Your task to perform on an android device: What's the weather going to be tomorrow? Image 0: 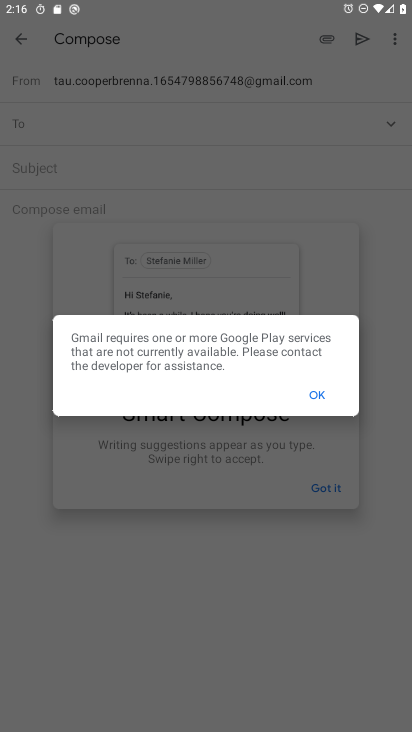
Step 0: press home button
Your task to perform on an android device: What's the weather going to be tomorrow? Image 1: 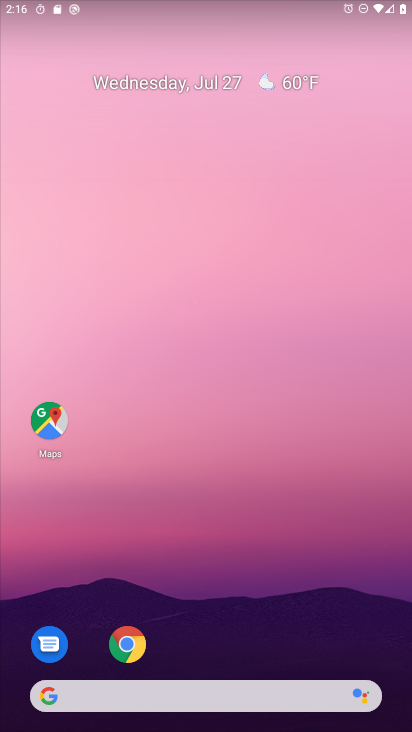
Step 1: drag from (150, 440) to (194, 177)
Your task to perform on an android device: What's the weather going to be tomorrow? Image 2: 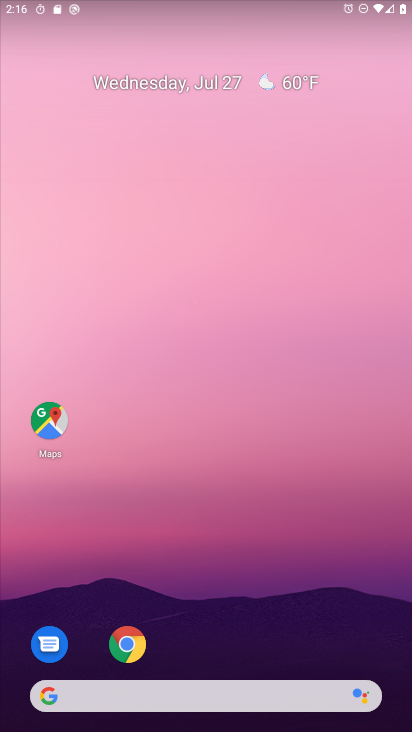
Step 2: drag from (174, 645) to (212, 159)
Your task to perform on an android device: What's the weather going to be tomorrow? Image 3: 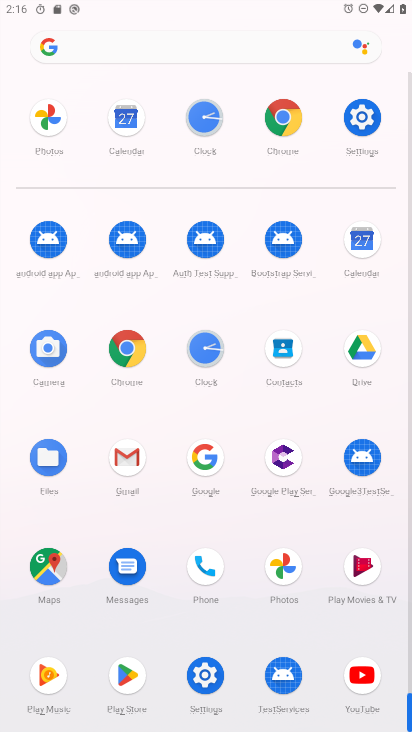
Step 3: click (133, 48)
Your task to perform on an android device: What's the weather going to be tomorrow? Image 4: 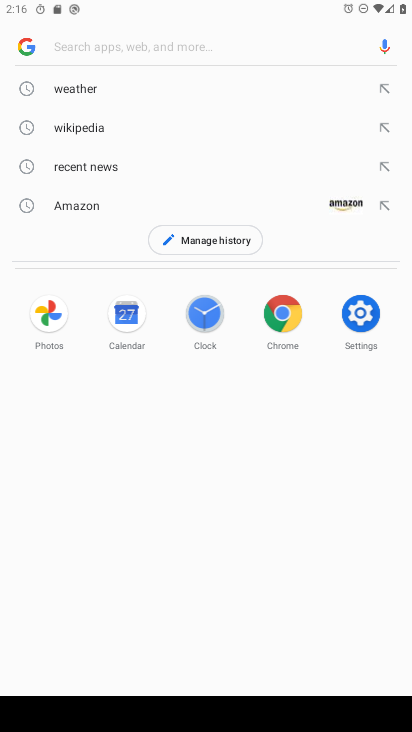
Step 4: type "What's the weather going to be tomorrow?"
Your task to perform on an android device: What's the weather going to be tomorrow? Image 5: 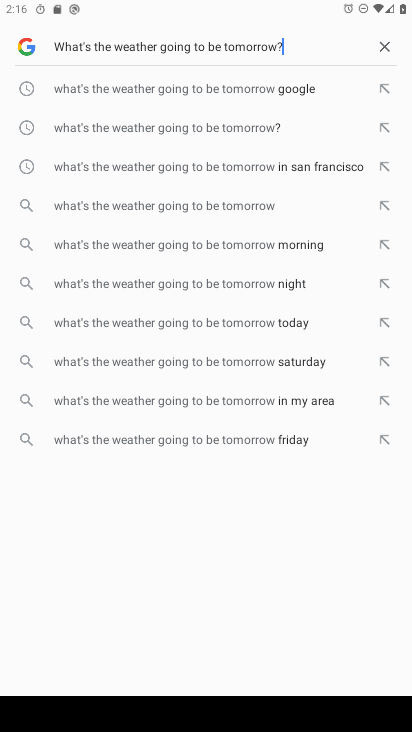
Step 5: type ""
Your task to perform on an android device: What's the weather going to be tomorrow? Image 6: 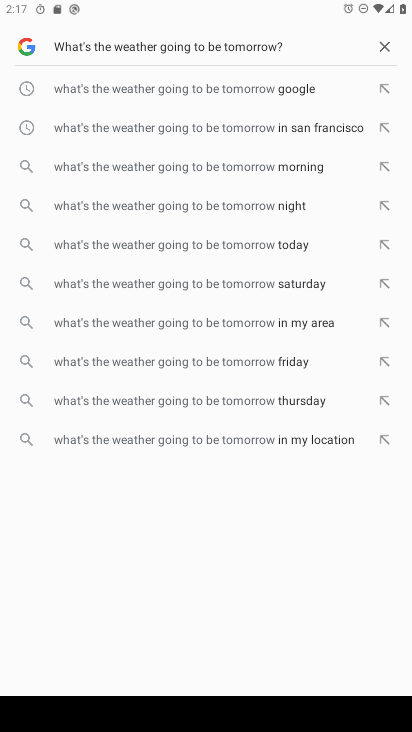
Step 6: click (206, 94)
Your task to perform on an android device: What's the weather going to be tomorrow? Image 7: 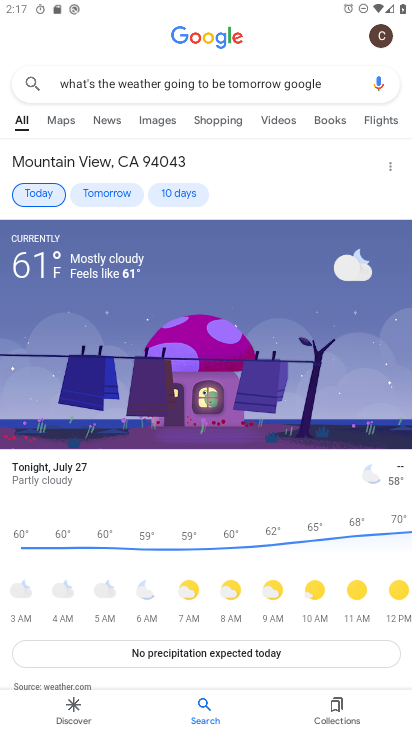
Step 7: task complete